Your task to perform on an android device: add a label to a message in the gmail app Image 0: 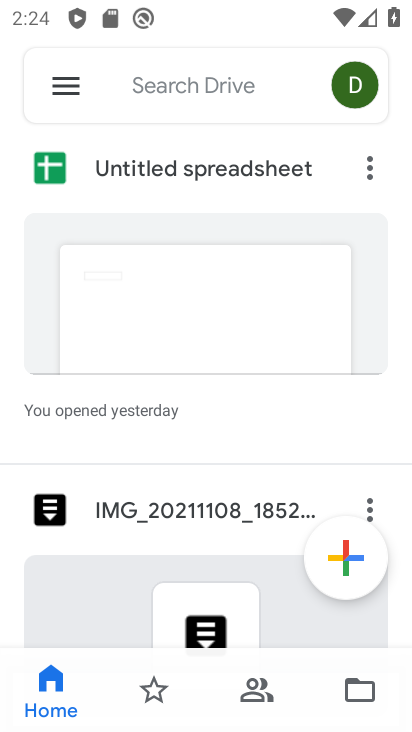
Step 0: task complete